Your task to perform on an android device: turn on priority inbox in the gmail app Image 0: 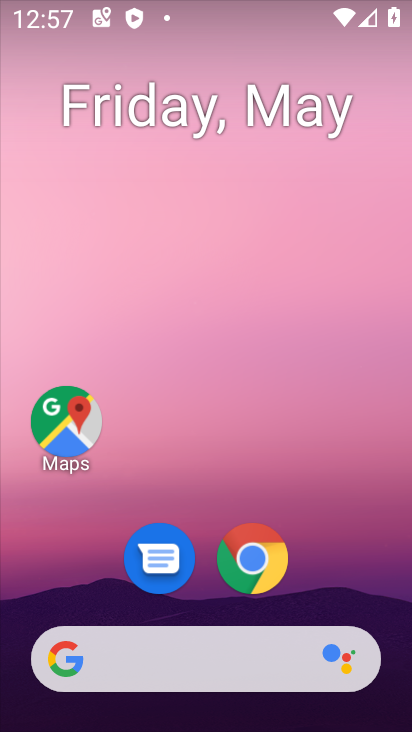
Step 0: drag from (388, 591) to (352, 100)
Your task to perform on an android device: turn on priority inbox in the gmail app Image 1: 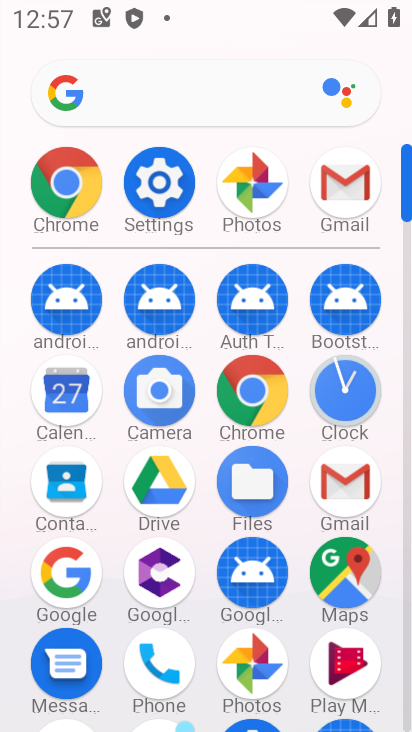
Step 1: click (361, 175)
Your task to perform on an android device: turn on priority inbox in the gmail app Image 2: 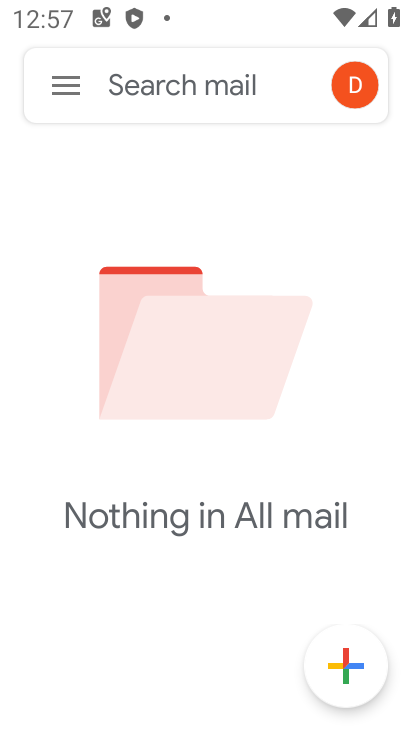
Step 2: click (62, 91)
Your task to perform on an android device: turn on priority inbox in the gmail app Image 3: 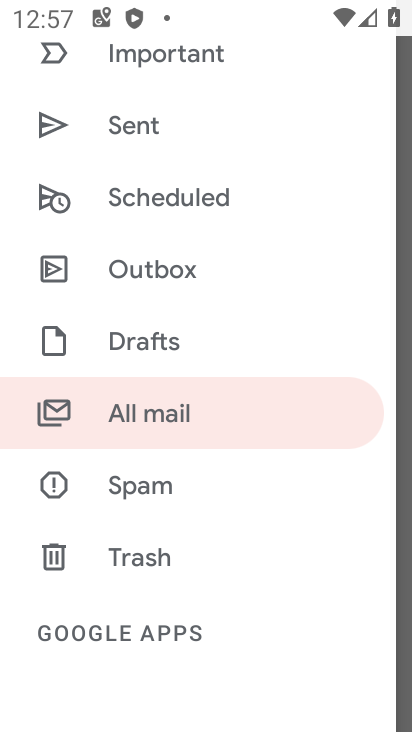
Step 3: drag from (175, 623) to (197, 61)
Your task to perform on an android device: turn on priority inbox in the gmail app Image 4: 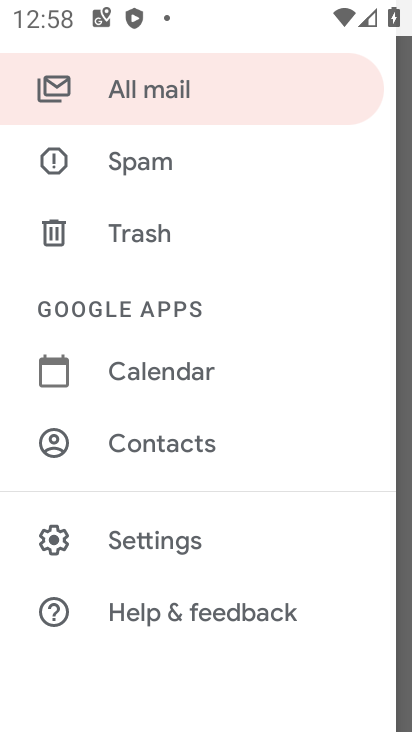
Step 4: click (186, 553)
Your task to perform on an android device: turn on priority inbox in the gmail app Image 5: 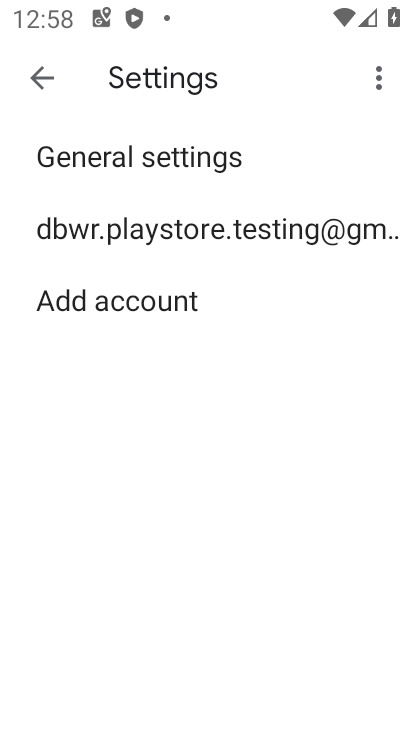
Step 5: click (274, 248)
Your task to perform on an android device: turn on priority inbox in the gmail app Image 6: 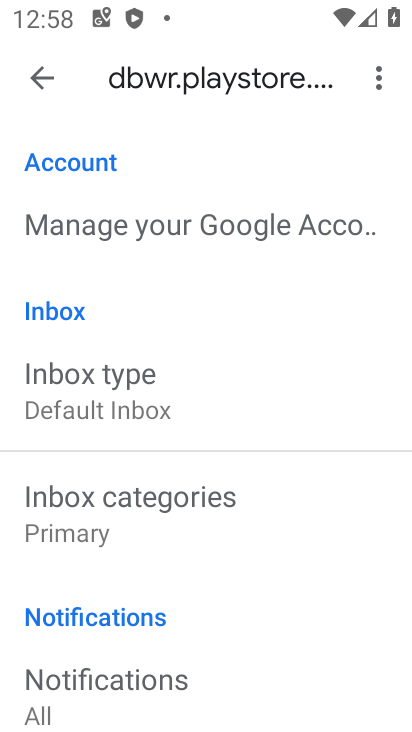
Step 6: click (214, 384)
Your task to perform on an android device: turn on priority inbox in the gmail app Image 7: 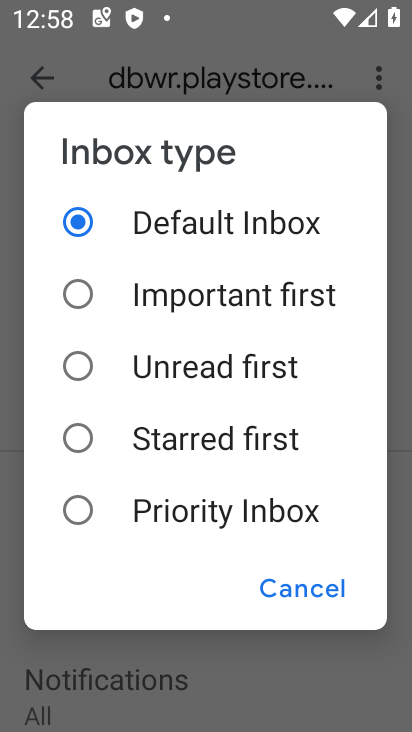
Step 7: click (203, 515)
Your task to perform on an android device: turn on priority inbox in the gmail app Image 8: 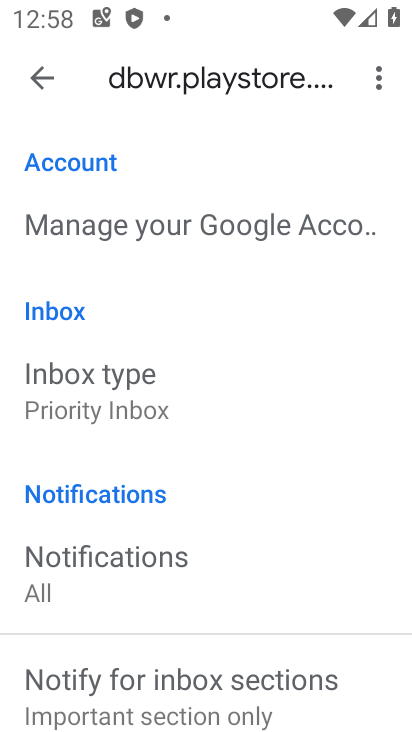
Step 8: task complete